Your task to perform on an android device: turn on data saver in the chrome app Image 0: 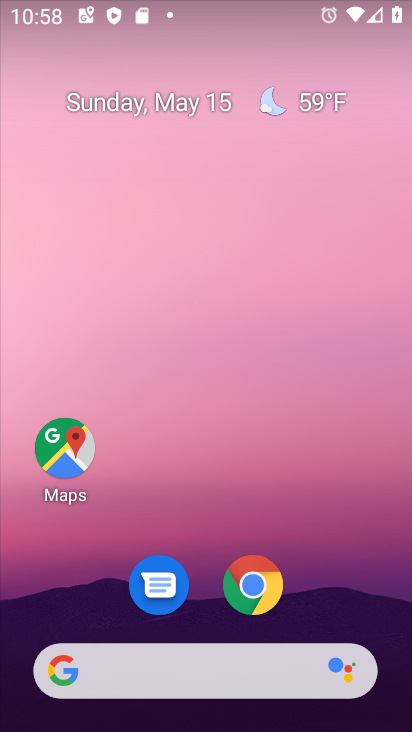
Step 0: click (269, 579)
Your task to perform on an android device: turn on data saver in the chrome app Image 1: 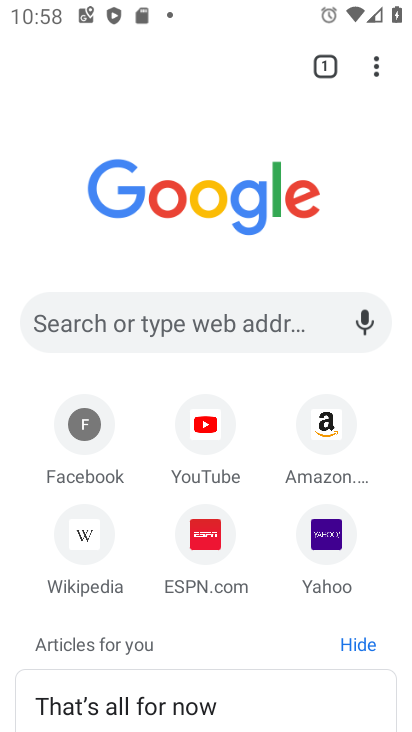
Step 1: click (371, 64)
Your task to perform on an android device: turn on data saver in the chrome app Image 2: 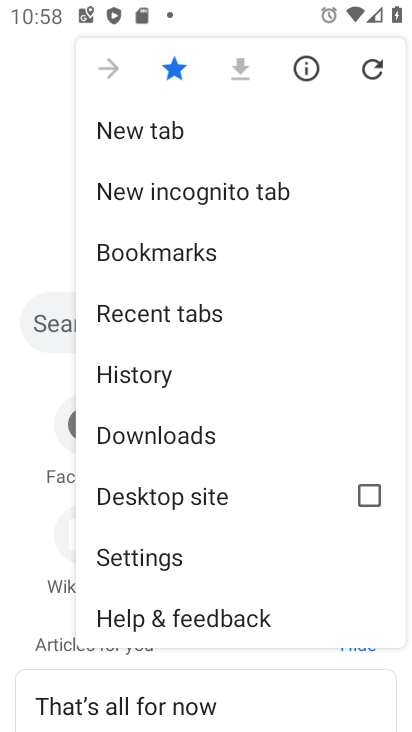
Step 2: click (187, 550)
Your task to perform on an android device: turn on data saver in the chrome app Image 3: 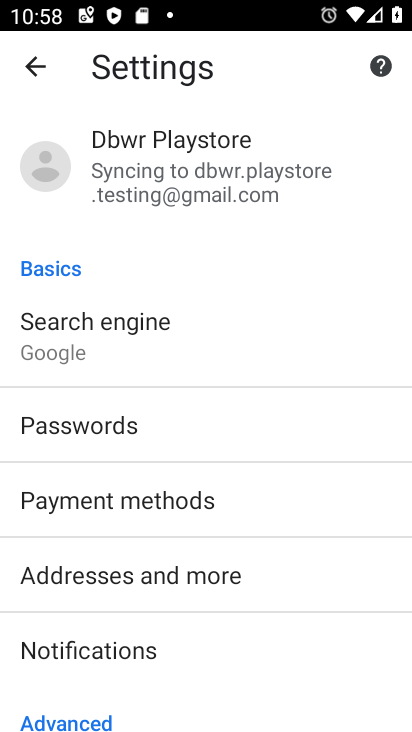
Step 3: drag from (248, 613) to (238, 173)
Your task to perform on an android device: turn on data saver in the chrome app Image 4: 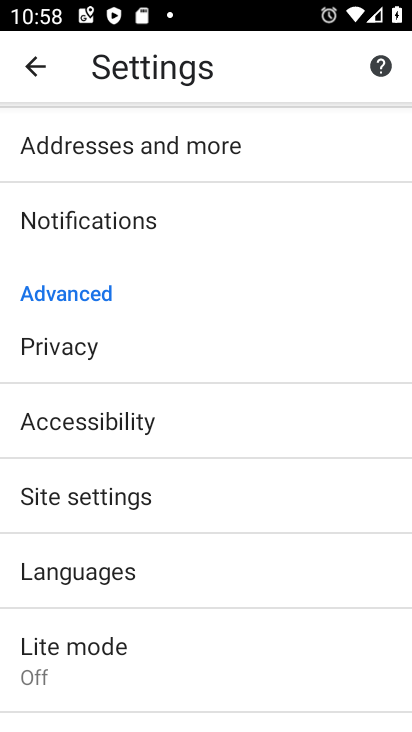
Step 4: click (161, 658)
Your task to perform on an android device: turn on data saver in the chrome app Image 5: 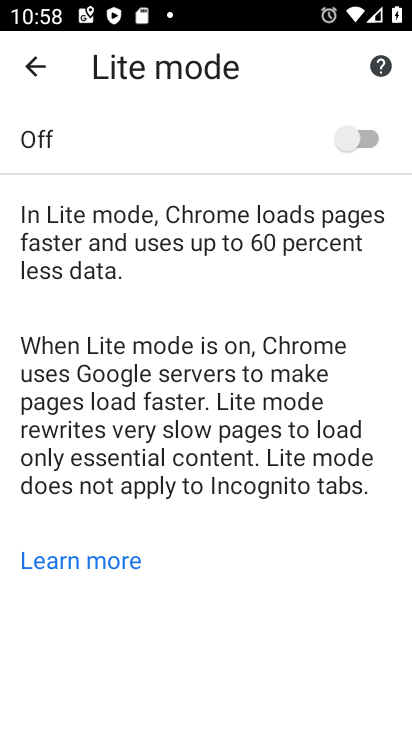
Step 5: click (354, 129)
Your task to perform on an android device: turn on data saver in the chrome app Image 6: 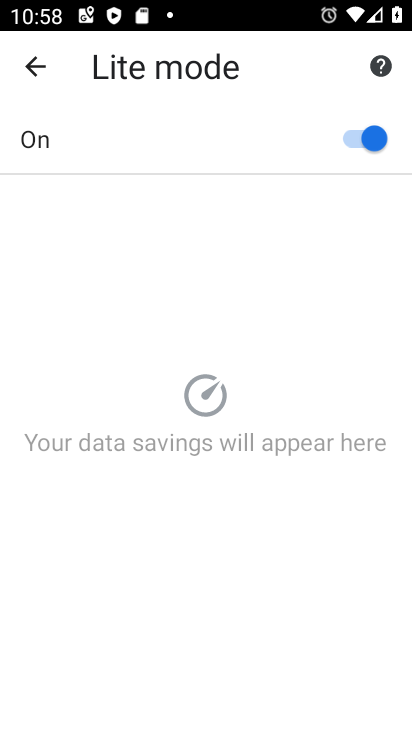
Step 6: task complete